Your task to perform on an android device: Go to Google Image 0: 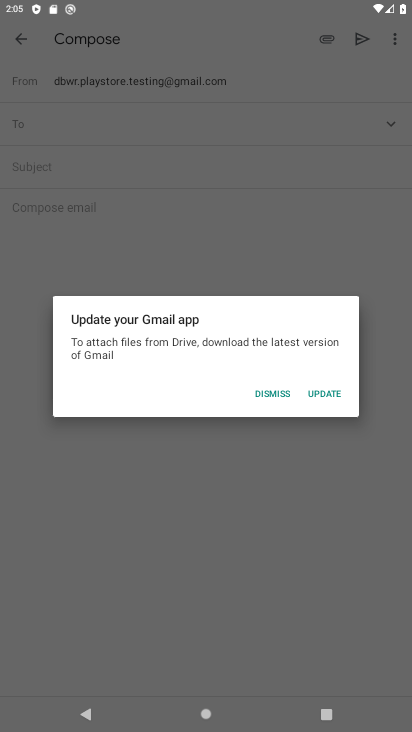
Step 0: click (210, 709)
Your task to perform on an android device: Go to Google Image 1: 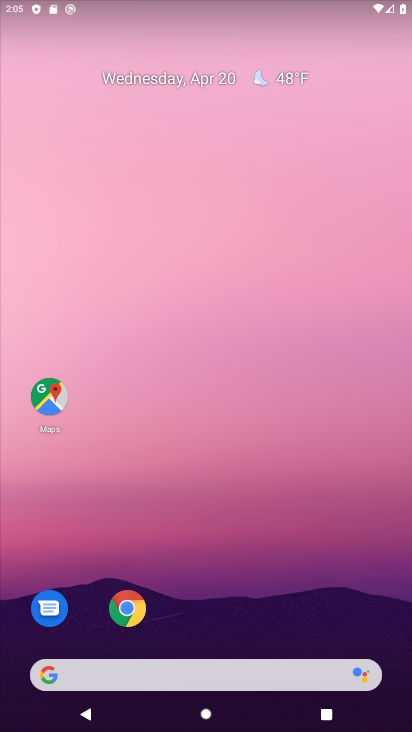
Step 1: click (125, 629)
Your task to perform on an android device: Go to Google Image 2: 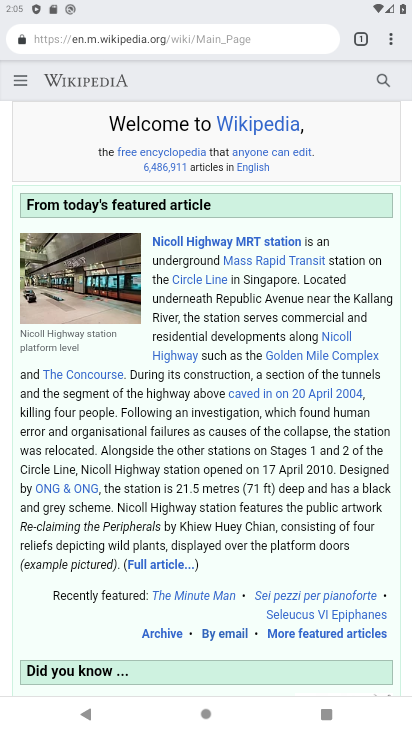
Step 2: click (252, 45)
Your task to perform on an android device: Go to Google Image 3: 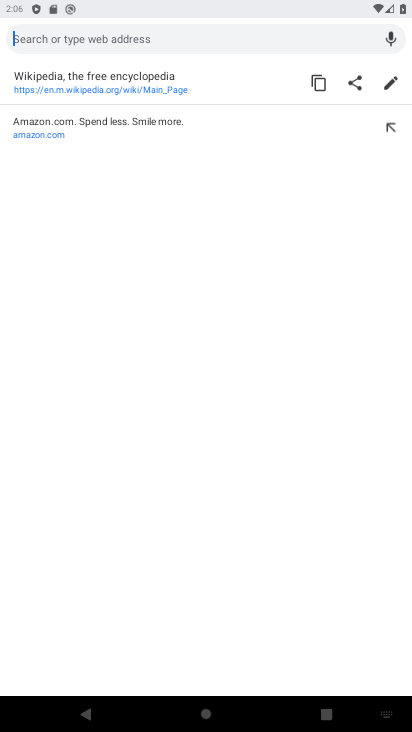
Step 3: type "google.com"
Your task to perform on an android device: Go to Google Image 4: 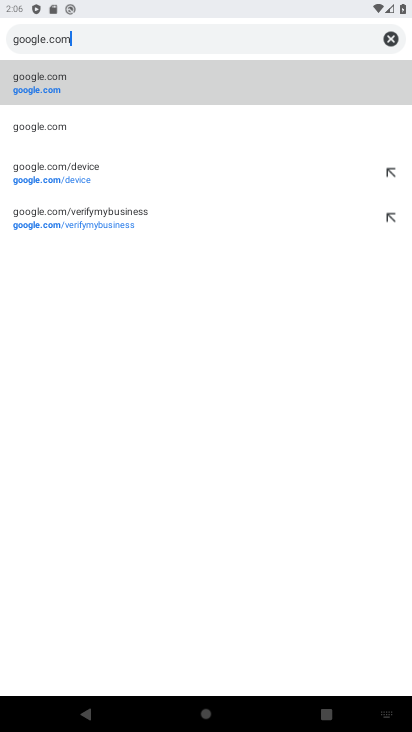
Step 4: click (186, 85)
Your task to perform on an android device: Go to Google Image 5: 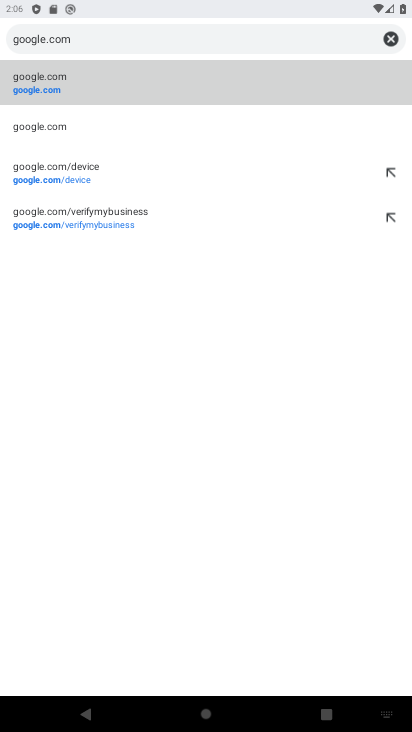
Step 5: click (186, 85)
Your task to perform on an android device: Go to Google Image 6: 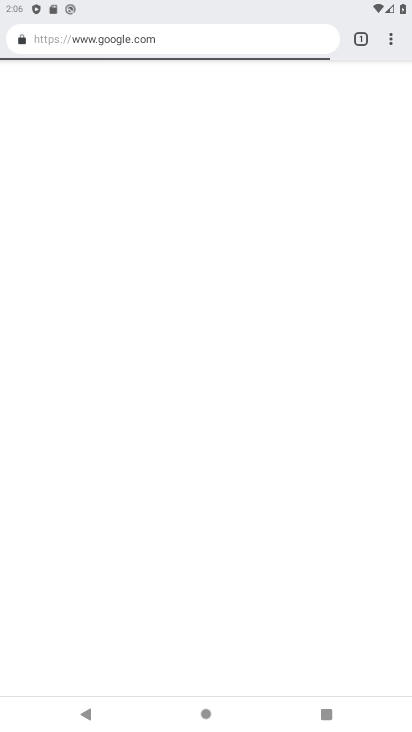
Step 6: task complete